Your task to perform on an android device: Open Wikipedia Image 0: 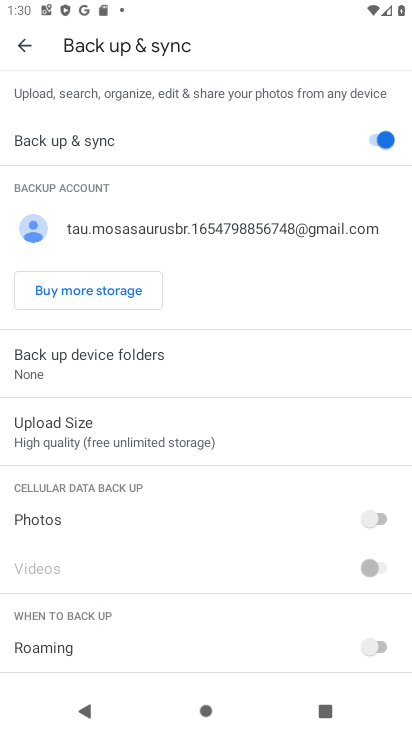
Step 0: press home button
Your task to perform on an android device: Open Wikipedia Image 1: 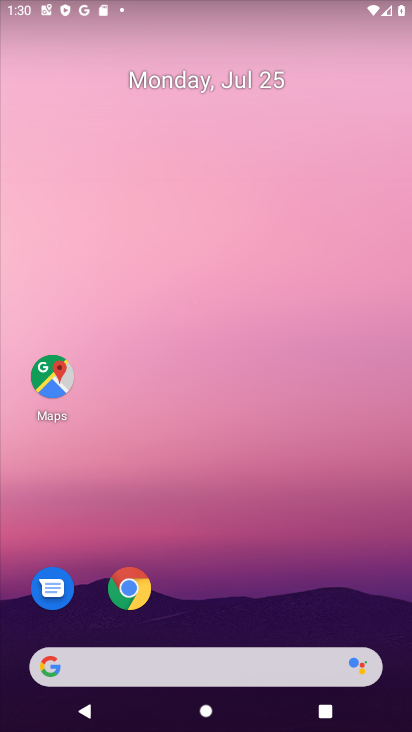
Step 1: click (210, 626)
Your task to perform on an android device: Open Wikipedia Image 2: 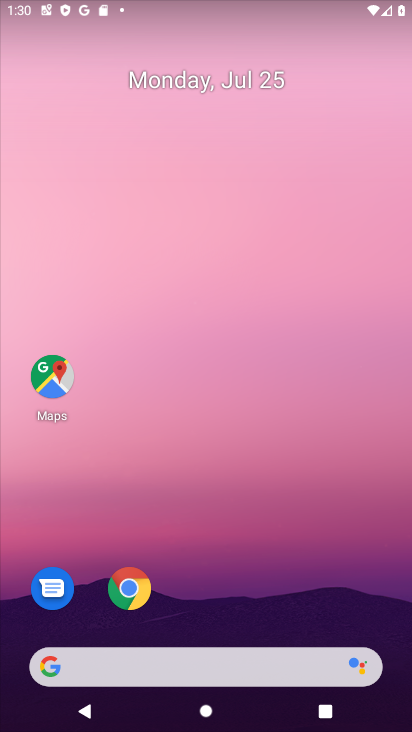
Step 2: click (129, 589)
Your task to perform on an android device: Open Wikipedia Image 3: 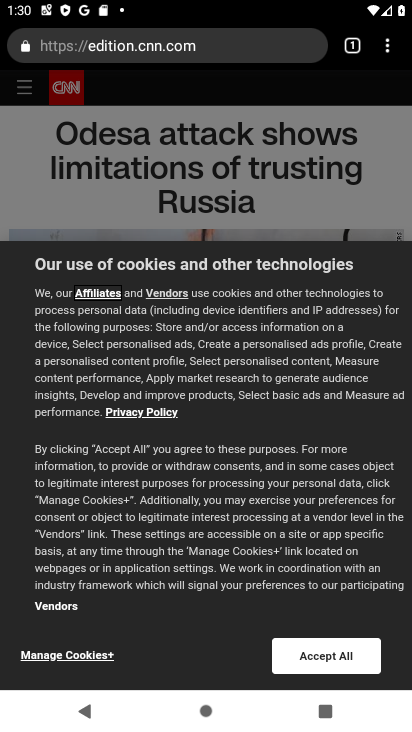
Step 3: click (350, 47)
Your task to perform on an android device: Open Wikipedia Image 4: 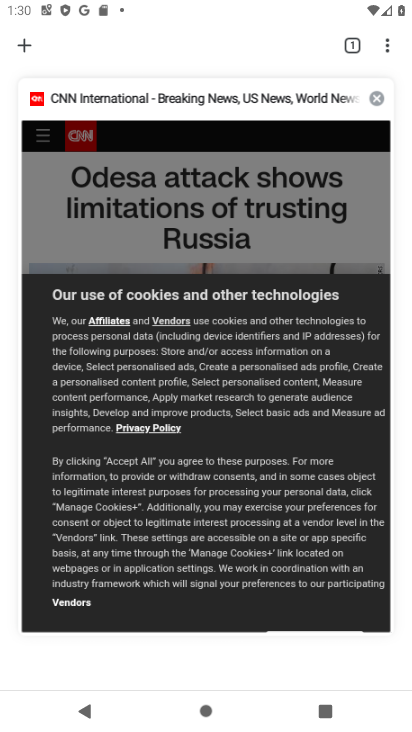
Step 4: click (376, 97)
Your task to perform on an android device: Open Wikipedia Image 5: 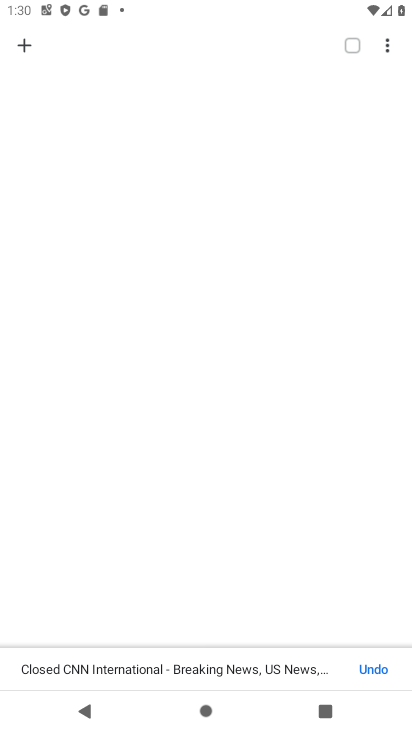
Step 5: click (27, 45)
Your task to perform on an android device: Open Wikipedia Image 6: 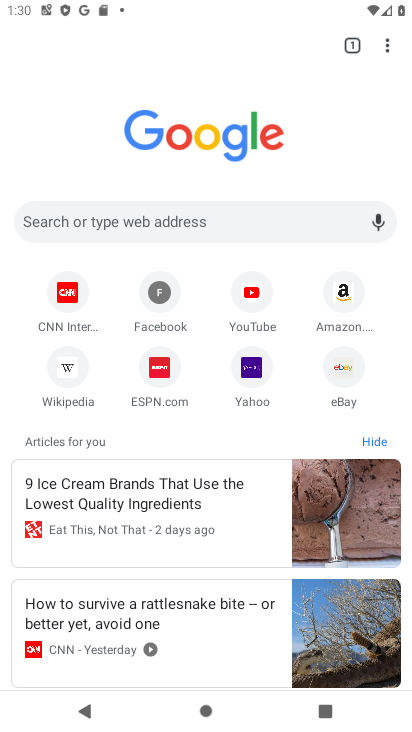
Step 6: click (66, 388)
Your task to perform on an android device: Open Wikipedia Image 7: 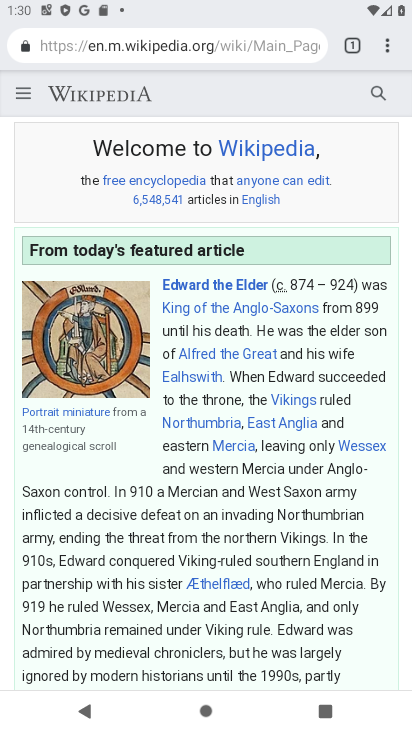
Step 7: task complete